Your task to perform on an android device: Open location settings Image 0: 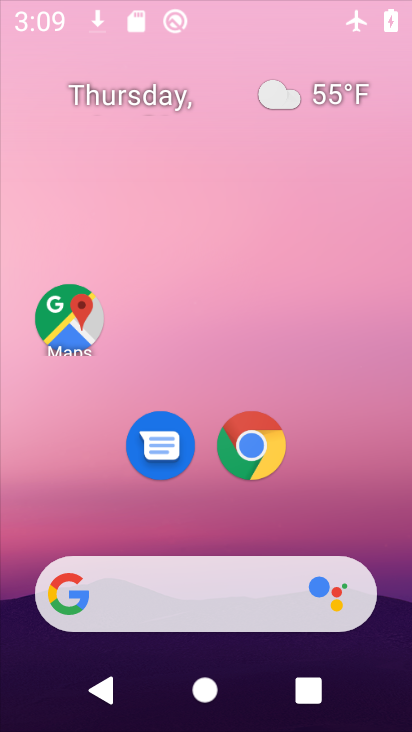
Step 0: click (333, 122)
Your task to perform on an android device: Open location settings Image 1: 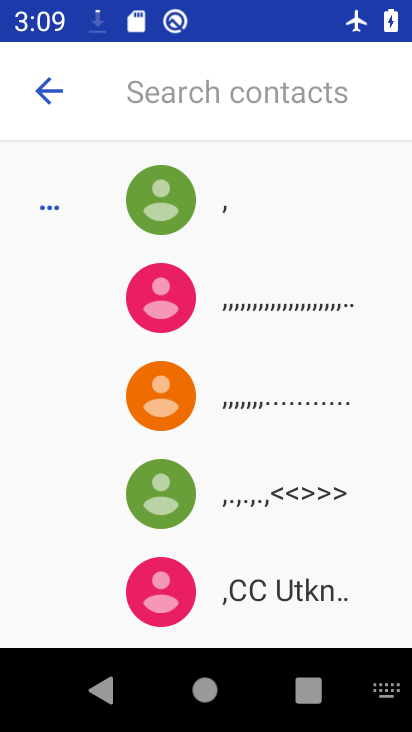
Step 1: press home button
Your task to perform on an android device: Open location settings Image 2: 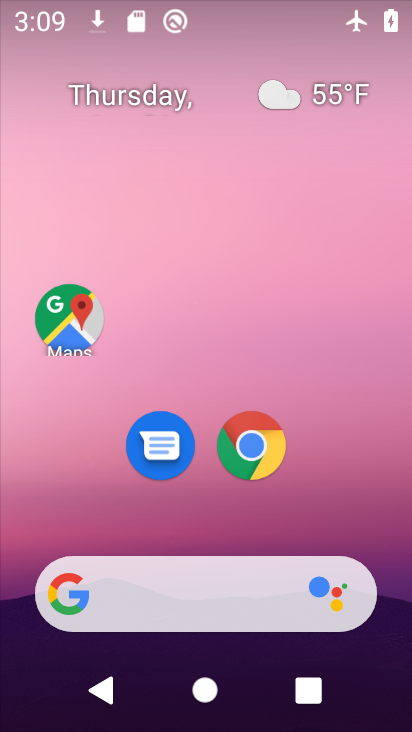
Step 2: drag from (318, 529) to (331, 147)
Your task to perform on an android device: Open location settings Image 3: 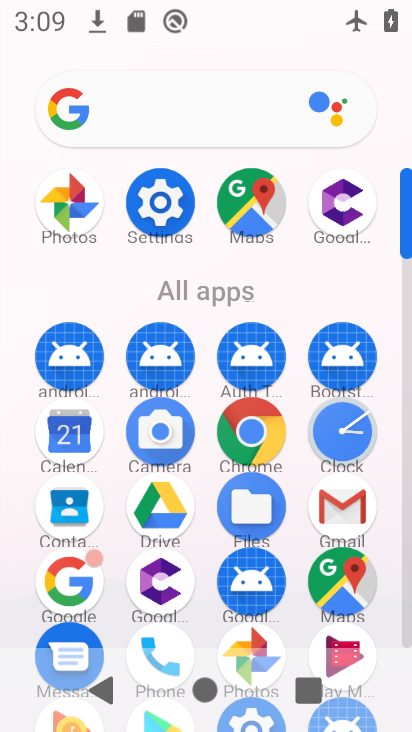
Step 3: drag from (204, 598) to (227, 624)
Your task to perform on an android device: Open location settings Image 4: 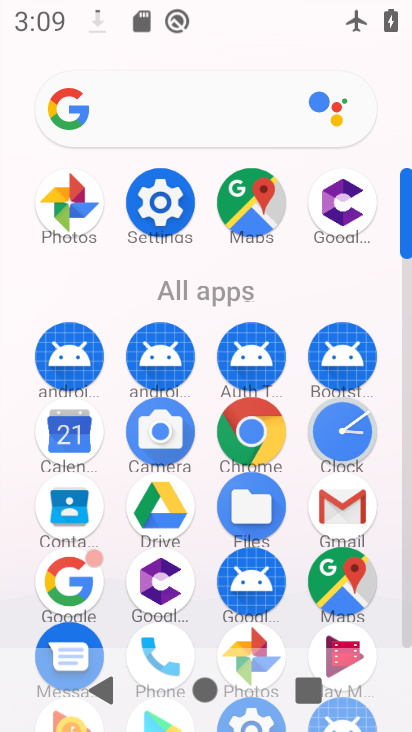
Step 4: click (152, 232)
Your task to perform on an android device: Open location settings Image 5: 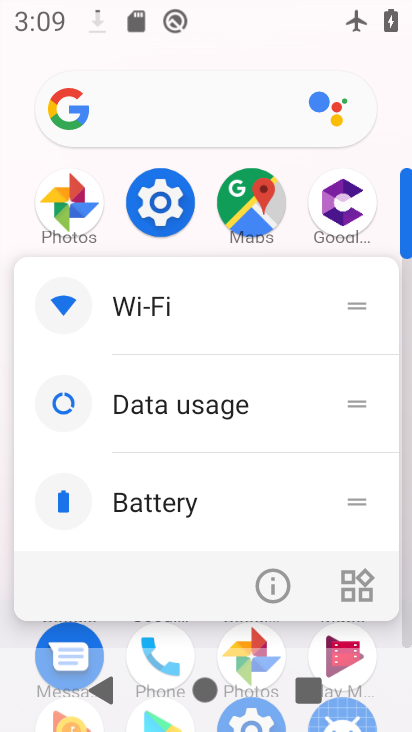
Step 5: click (169, 218)
Your task to perform on an android device: Open location settings Image 6: 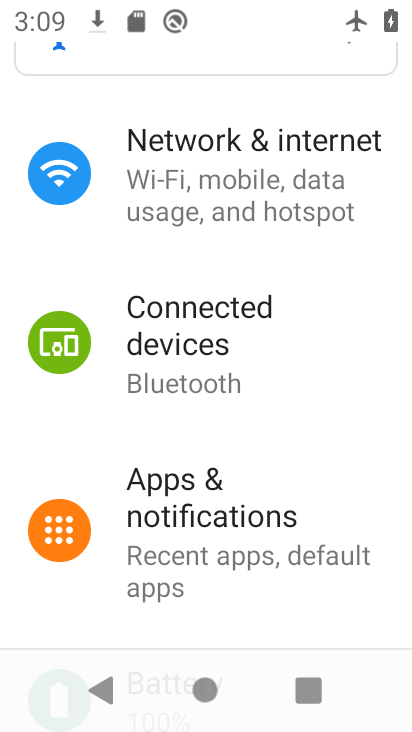
Step 6: drag from (316, 325) to (299, 218)
Your task to perform on an android device: Open location settings Image 7: 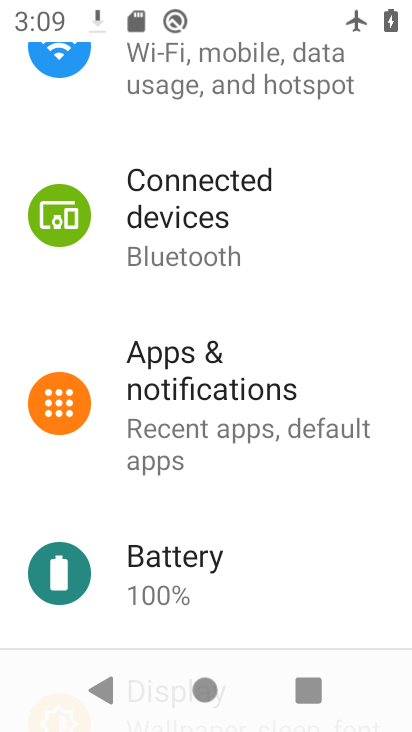
Step 7: drag from (249, 577) to (265, 191)
Your task to perform on an android device: Open location settings Image 8: 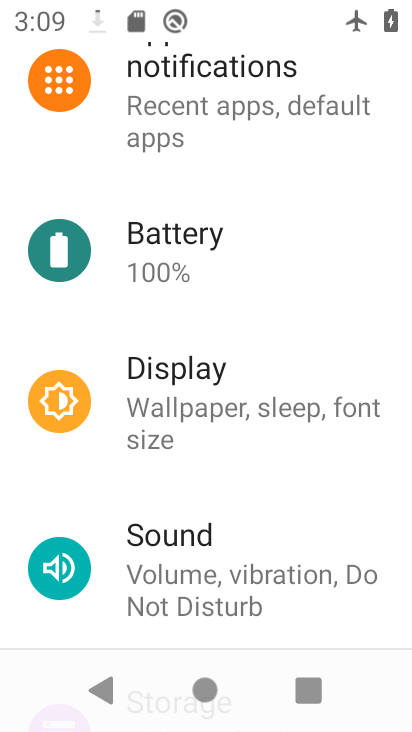
Step 8: drag from (329, 562) to (334, 192)
Your task to perform on an android device: Open location settings Image 9: 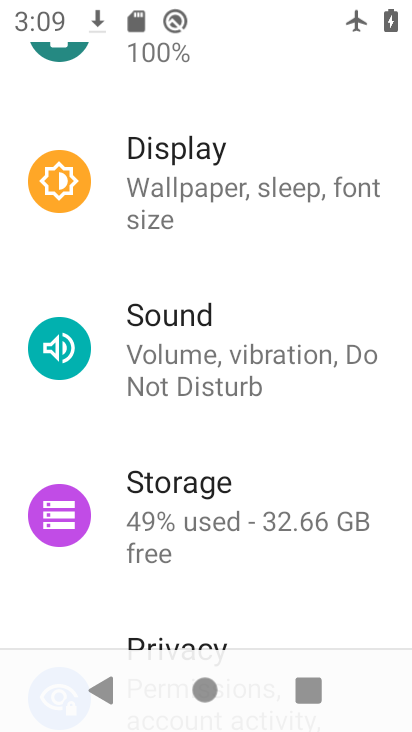
Step 9: drag from (327, 585) to (313, 171)
Your task to perform on an android device: Open location settings Image 10: 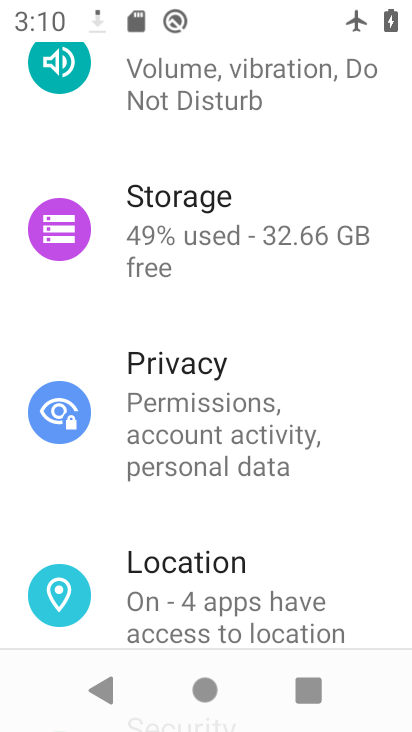
Step 10: click (213, 616)
Your task to perform on an android device: Open location settings Image 11: 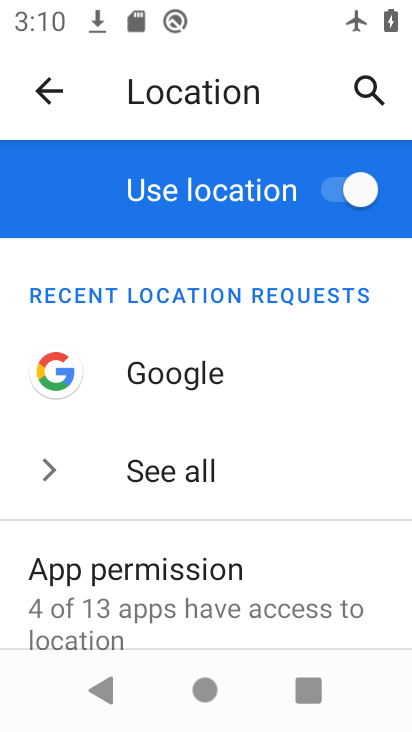
Step 11: drag from (281, 560) to (280, 222)
Your task to perform on an android device: Open location settings Image 12: 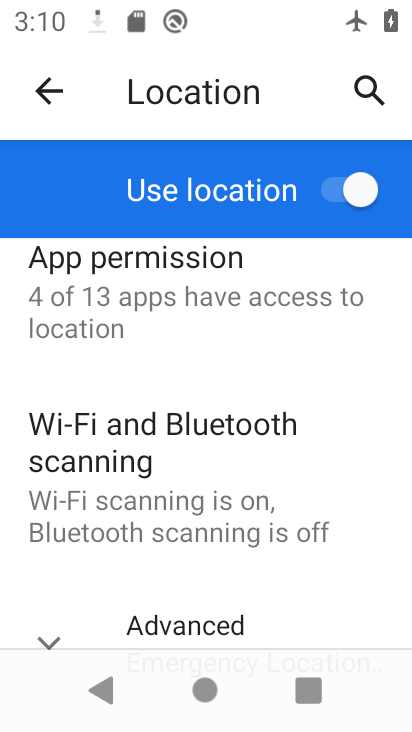
Step 12: drag from (288, 549) to (276, 279)
Your task to perform on an android device: Open location settings Image 13: 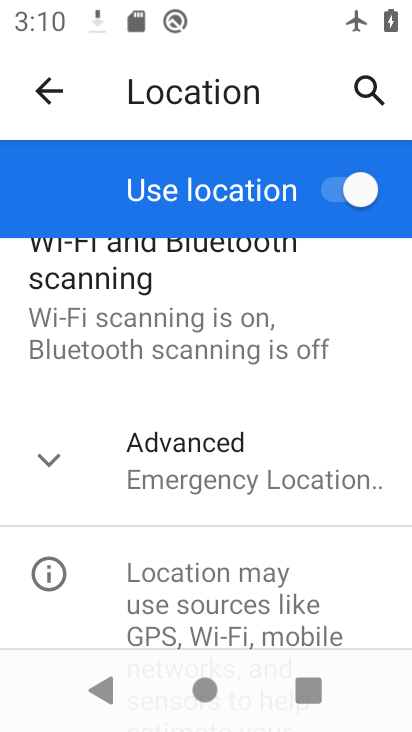
Step 13: click (45, 462)
Your task to perform on an android device: Open location settings Image 14: 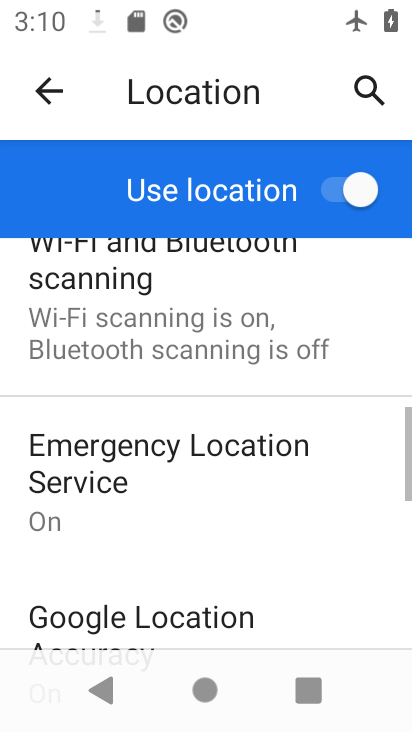
Step 14: task complete